Your task to perform on an android device: find which apps use the phone's location Image 0: 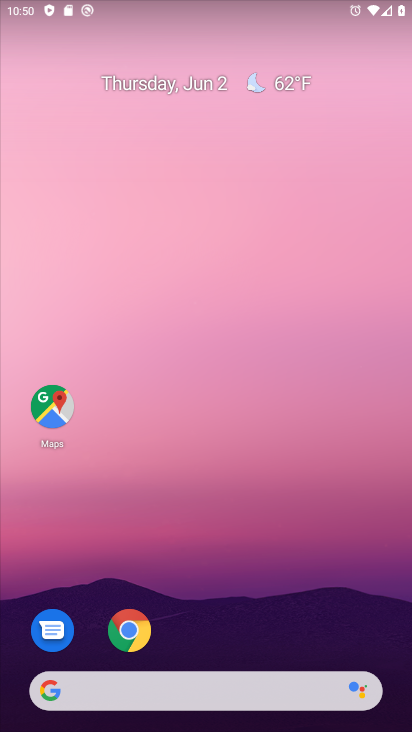
Step 0: drag from (215, 692) to (336, 146)
Your task to perform on an android device: find which apps use the phone's location Image 1: 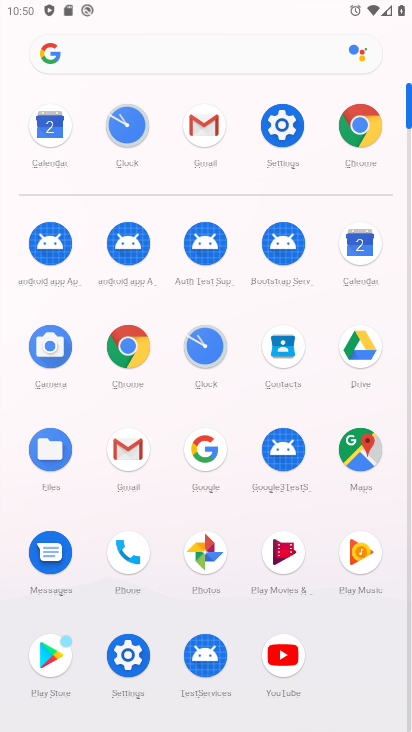
Step 1: click (284, 132)
Your task to perform on an android device: find which apps use the phone's location Image 2: 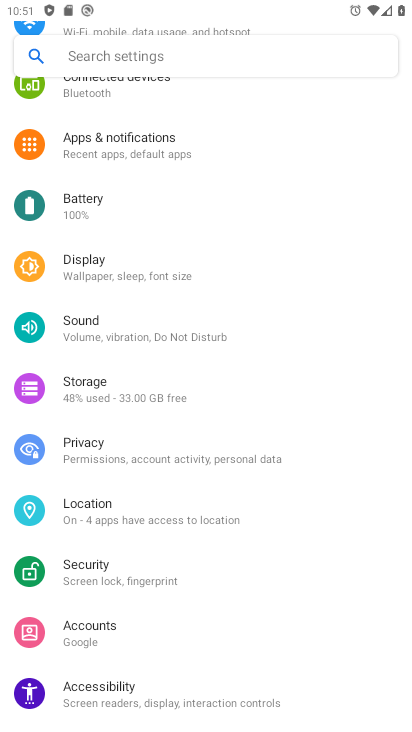
Step 2: click (119, 511)
Your task to perform on an android device: find which apps use the phone's location Image 3: 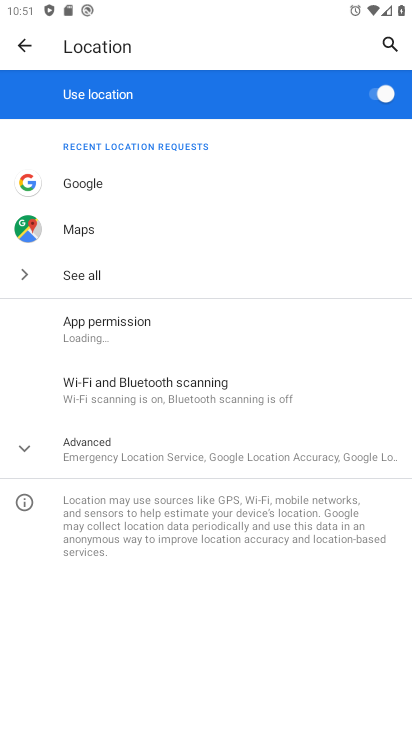
Step 3: click (126, 325)
Your task to perform on an android device: find which apps use the phone's location Image 4: 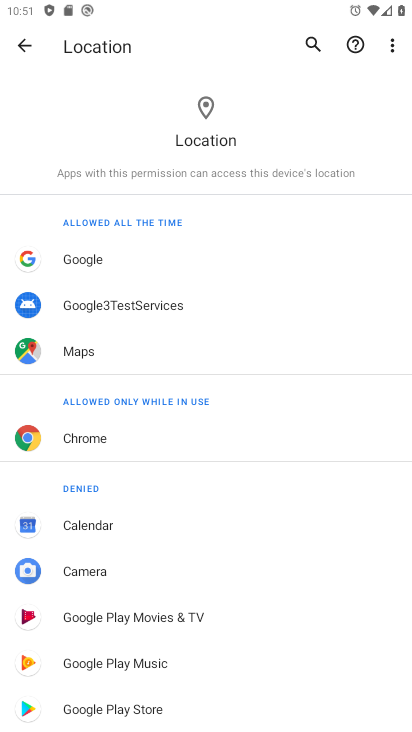
Step 4: drag from (180, 596) to (298, 178)
Your task to perform on an android device: find which apps use the phone's location Image 5: 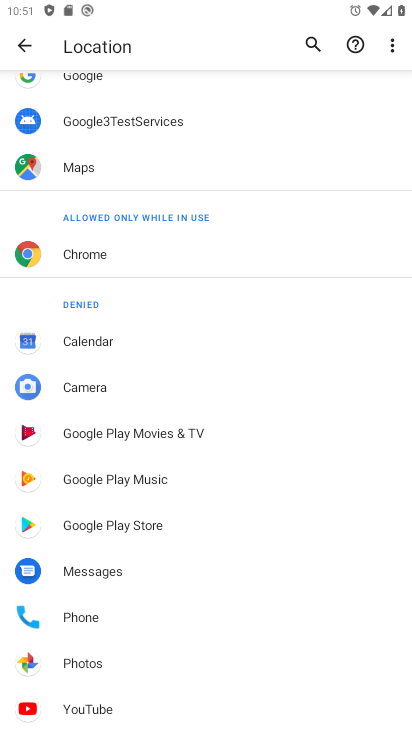
Step 5: click (77, 620)
Your task to perform on an android device: find which apps use the phone's location Image 6: 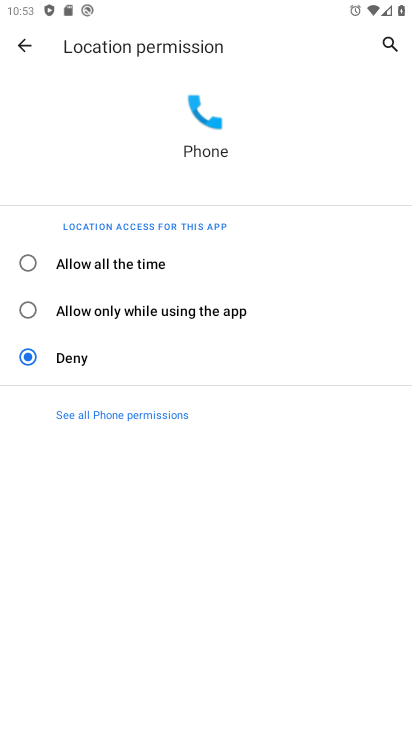
Step 6: task complete